Your task to perform on an android device: toggle priority inbox in the gmail app Image 0: 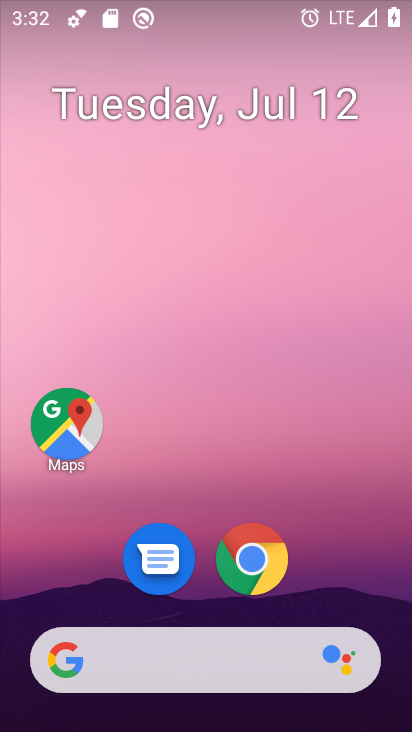
Step 0: drag from (358, 581) to (390, 181)
Your task to perform on an android device: toggle priority inbox in the gmail app Image 1: 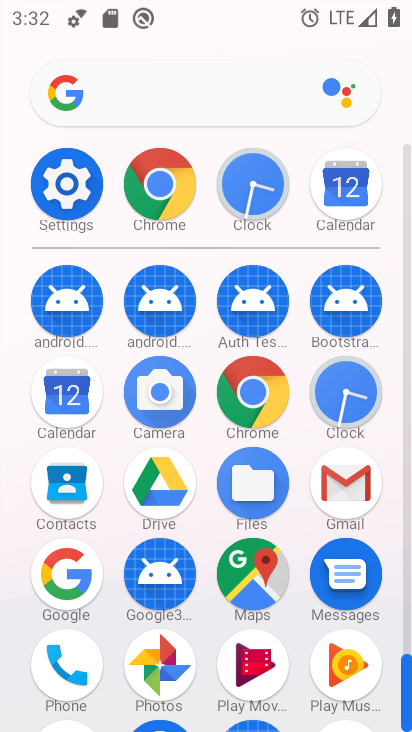
Step 1: click (355, 478)
Your task to perform on an android device: toggle priority inbox in the gmail app Image 2: 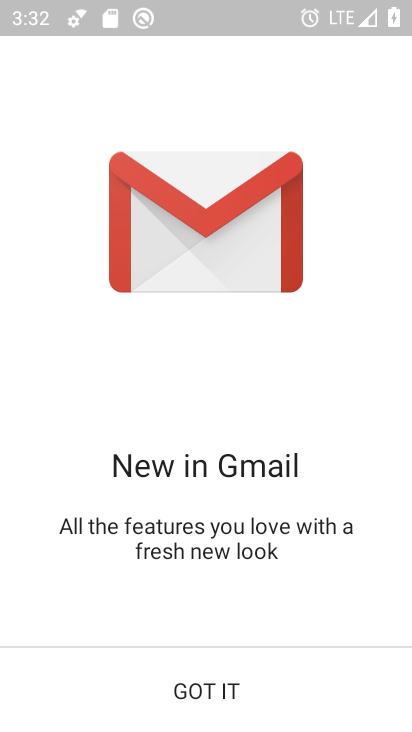
Step 2: click (241, 675)
Your task to perform on an android device: toggle priority inbox in the gmail app Image 3: 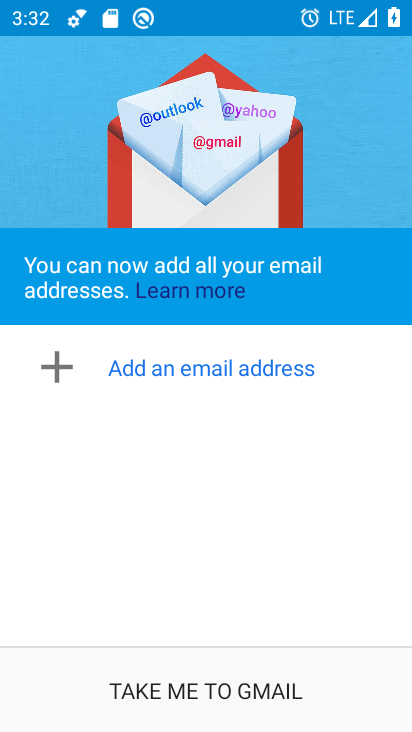
Step 3: click (217, 702)
Your task to perform on an android device: toggle priority inbox in the gmail app Image 4: 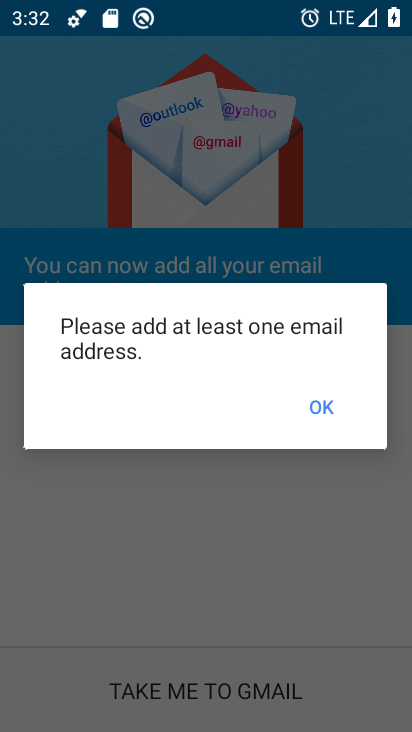
Step 4: task complete